Your task to perform on an android device: Search for Mexican restaurants on Maps Image 0: 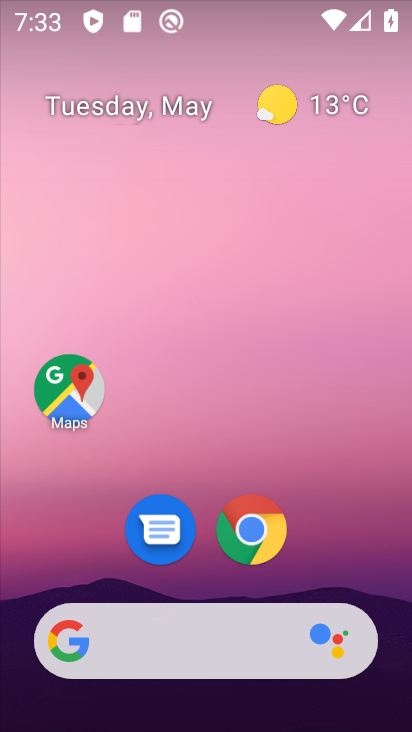
Step 0: click (51, 392)
Your task to perform on an android device: Search for Mexican restaurants on Maps Image 1: 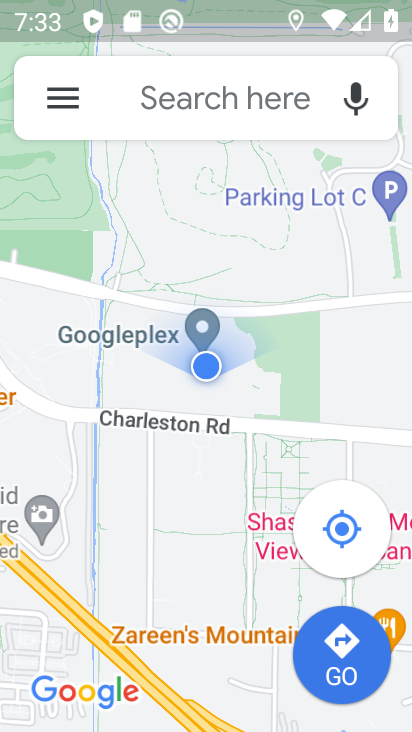
Step 1: click (161, 106)
Your task to perform on an android device: Search for Mexican restaurants on Maps Image 2: 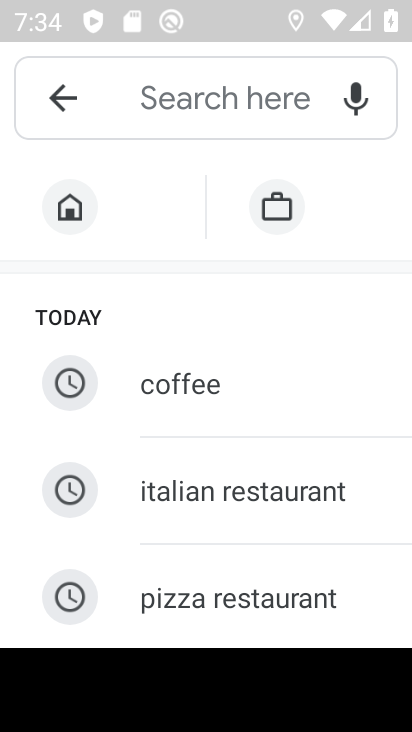
Step 2: type "mexican"
Your task to perform on an android device: Search for Mexican restaurants on Maps Image 3: 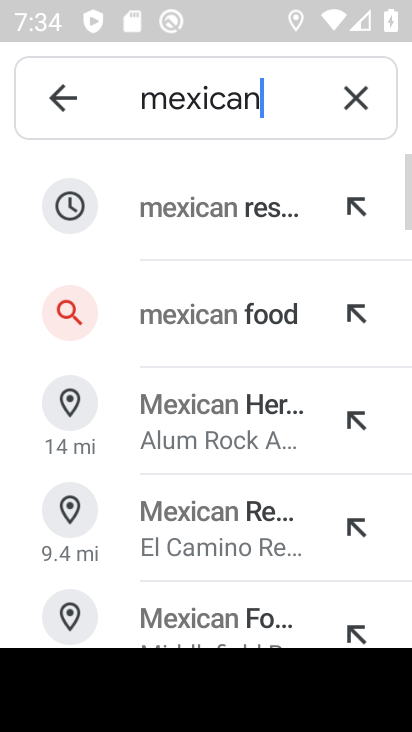
Step 3: click (236, 232)
Your task to perform on an android device: Search for Mexican restaurants on Maps Image 4: 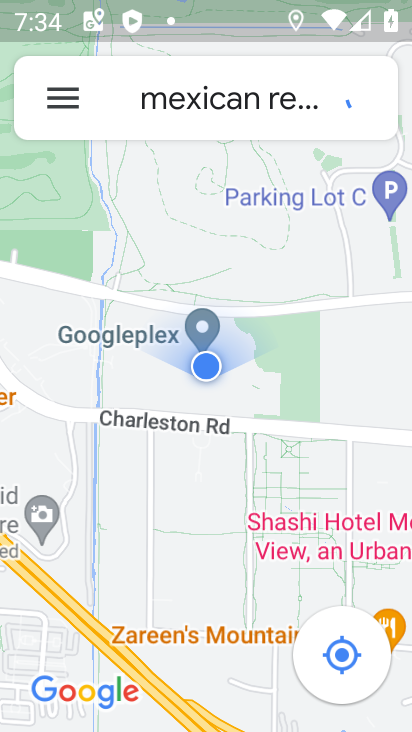
Step 4: task complete